Your task to perform on an android device: clear all cookies in the chrome app Image 0: 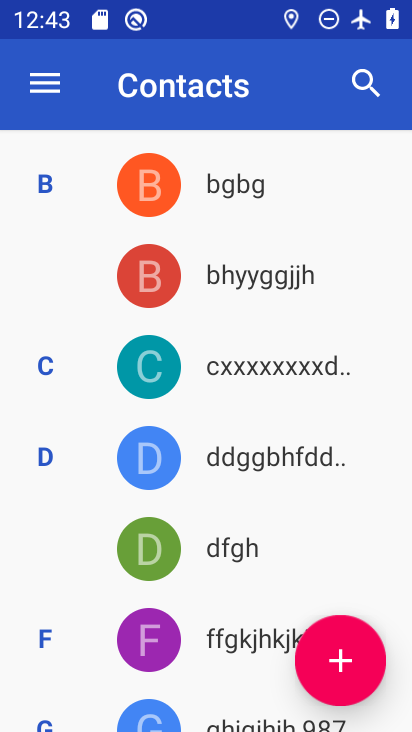
Step 0: press home button
Your task to perform on an android device: clear all cookies in the chrome app Image 1: 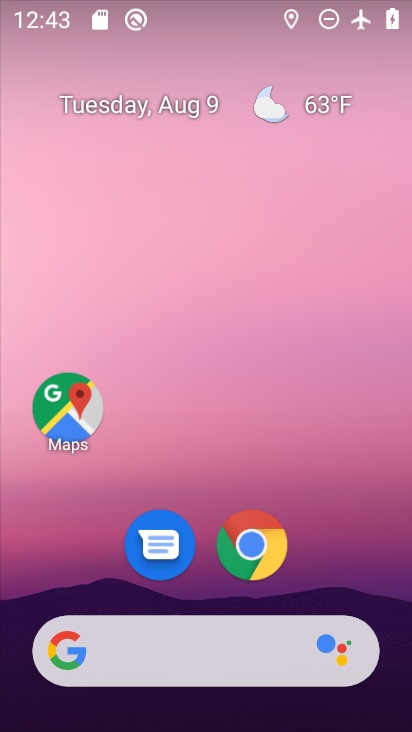
Step 1: click (255, 545)
Your task to perform on an android device: clear all cookies in the chrome app Image 2: 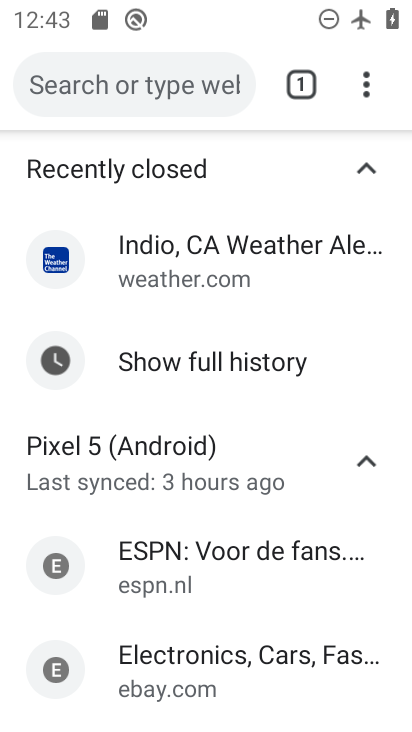
Step 2: click (367, 85)
Your task to perform on an android device: clear all cookies in the chrome app Image 3: 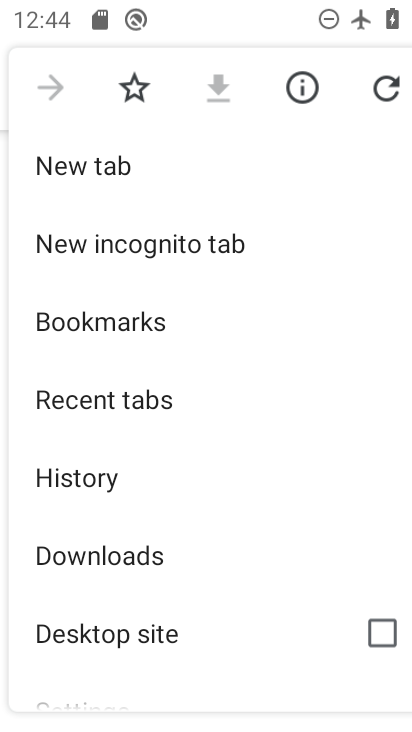
Step 3: drag from (134, 504) to (155, 396)
Your task to perform on an android device: clear all cookies in the chrome app Image 4: 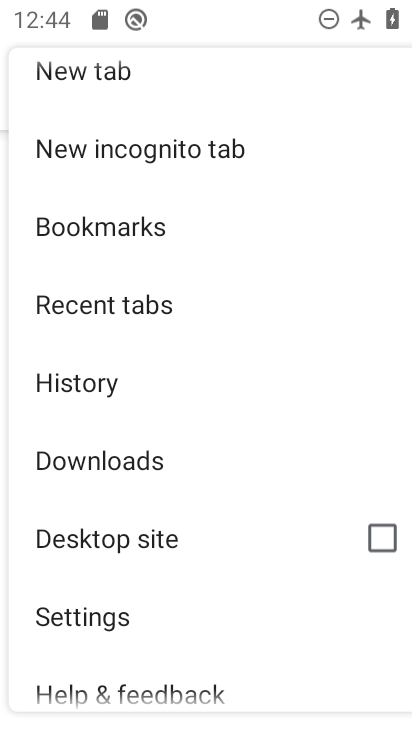
Step 4: drag from (133, 556) to (178, 435)
Your task to perform on an android device: clear all cookies in the chrome app Image 5: 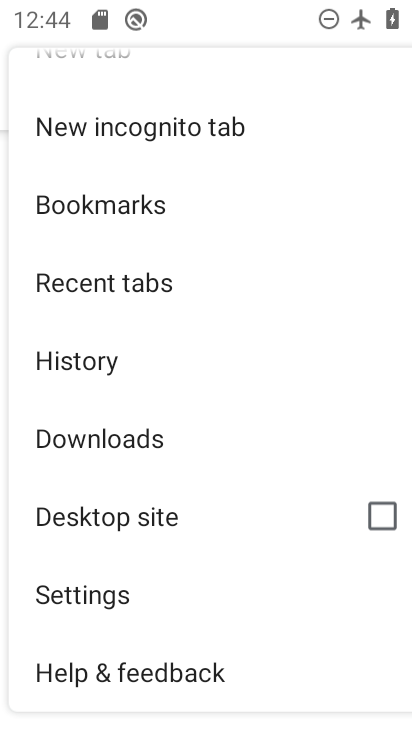
Step 5: click (112, 592)
Your task to perform on an android device: clear all cookies in the chrome app Image 6: 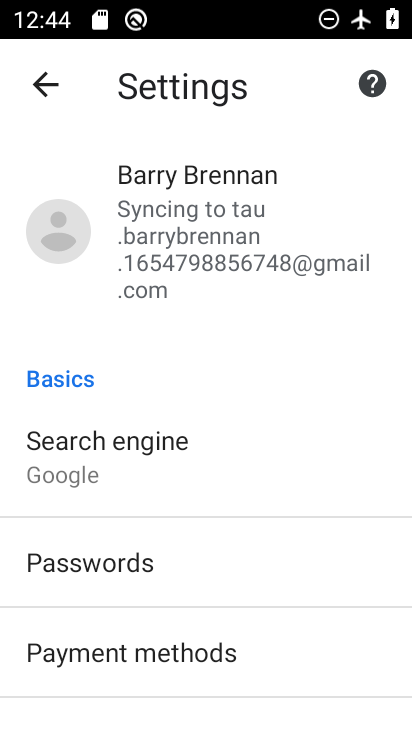
Step 6: drag from (164, 564) to (243, 447)
Your task to perform on an android device: clear all cookies in the chrome app Image 7: 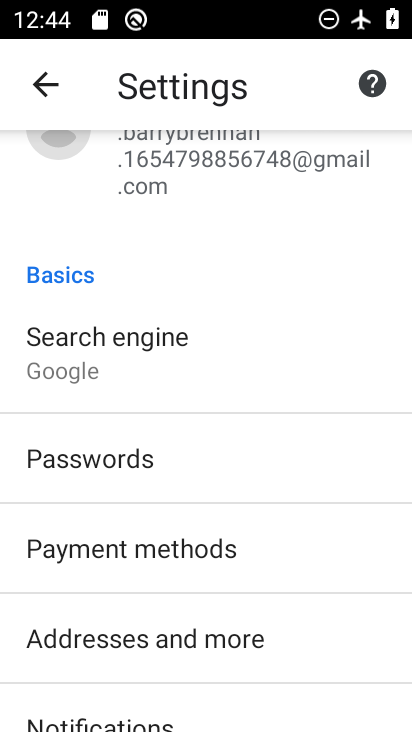
Step 7: drag from (144, 682) to (278, 507)
Your task to perform on an android device: clear all cookies in the chrome app Image 8: 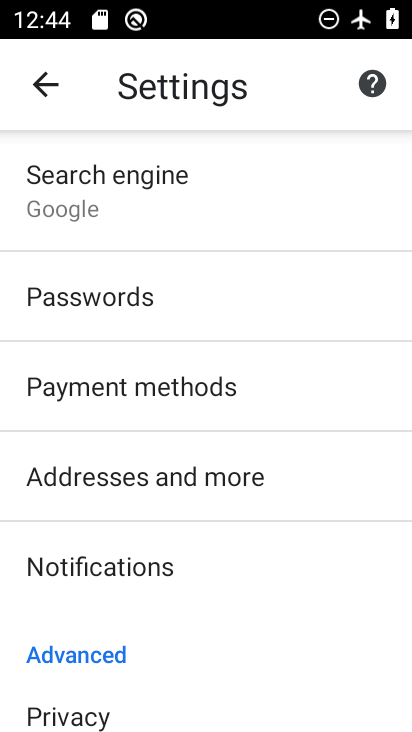
Step 8: drag from (177, 656) to (243, 463)
Your task to perform on an android device: clear all cookies in the chrome app Image 9: 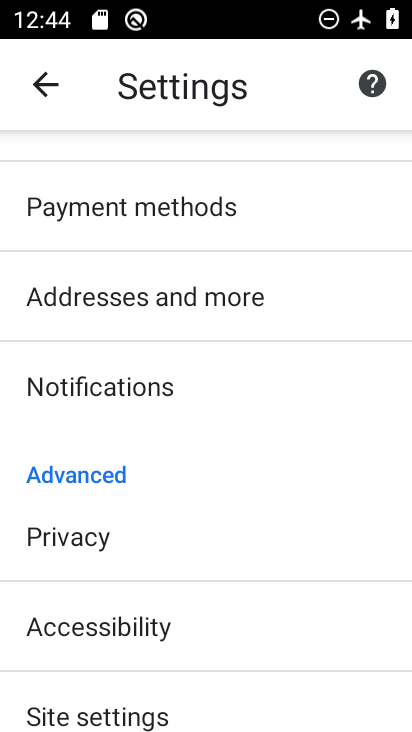
Step 9: drag from (197, 621) to (252, 520)
Your task to perform on an android device: clear all cookies in the chrome app Image 10: 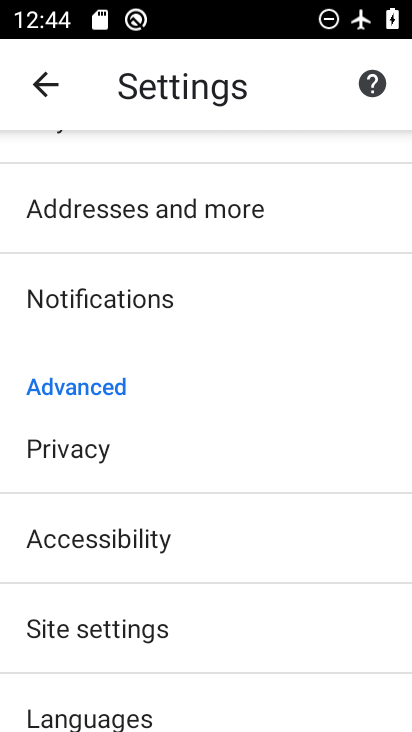
Step 10: click (77, 462)
Your task to perform on an android device: clear all cookies in the chrome app Image 11: 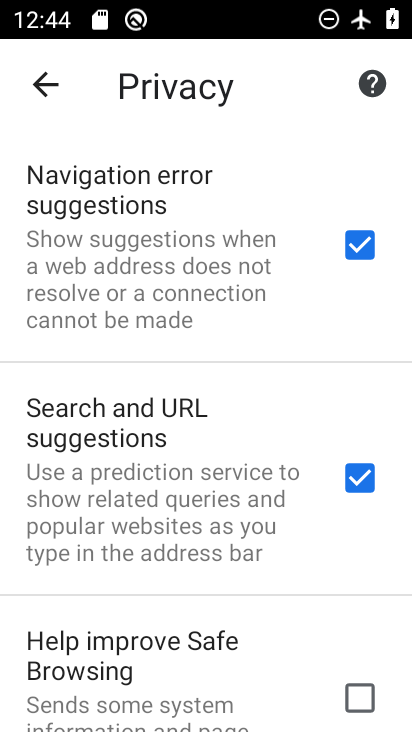
Step 11: drag from (256, 665) to (239, 371)
Your task to perform on an android device: clear all cookies in the chrome app Image 12: 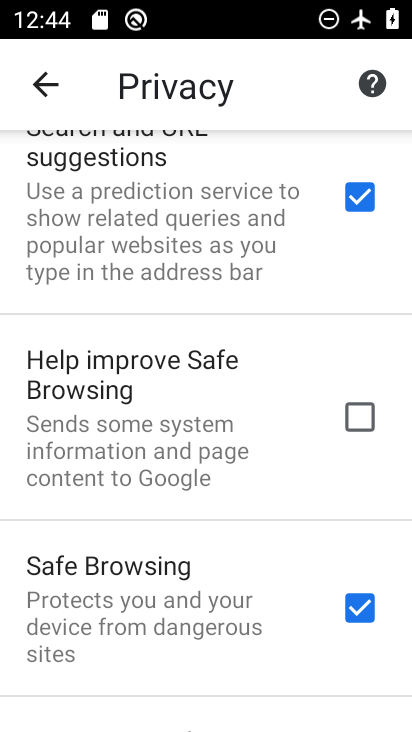
Step 12: drag from (211, 646) to (190, 369)
Your task to perform on an android device: clear all cookies in the chrome app Image 13: 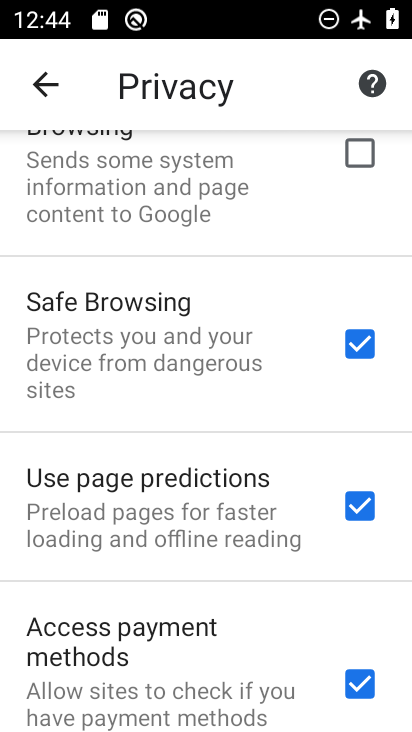
Step 13: drag from (237, 642) to (218, 396)
Your task to perform on an android device: clear all cookies in the chrome app Image 14: 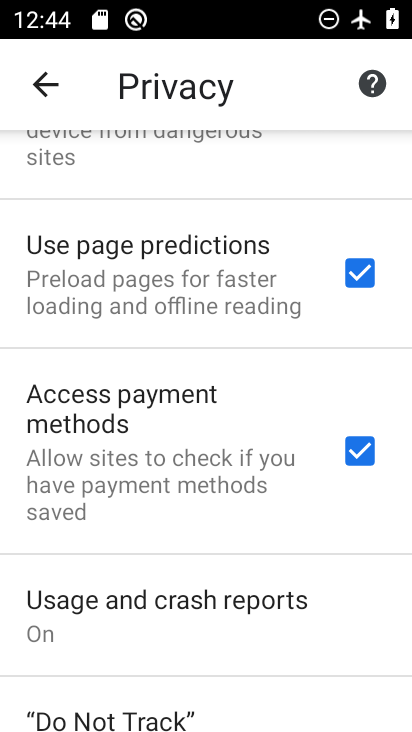
Step 14: drag from (217, 662) to (187, 435)
Your task to perform on an android device: clear all cookies in the chrome app Image 15: 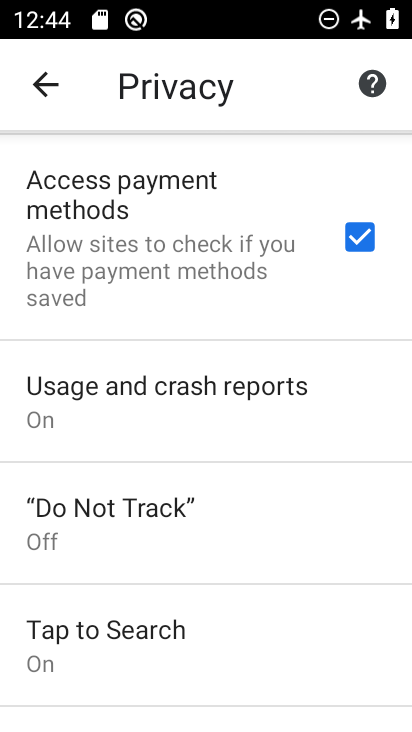
Step 15: drag from (234, 667) to (217, 417)
Your task to perform on an android device: clear all cookies in the chrome app Image 16: 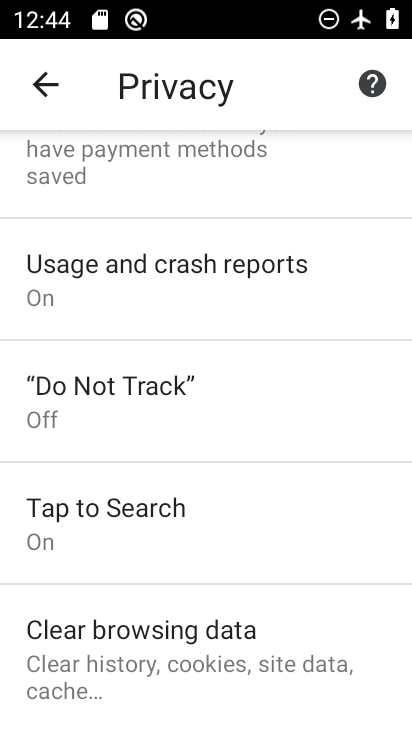
Step 16: click (227, 669)
Your task to perform on an android device: clear all cookies in the chrome app Image 17: 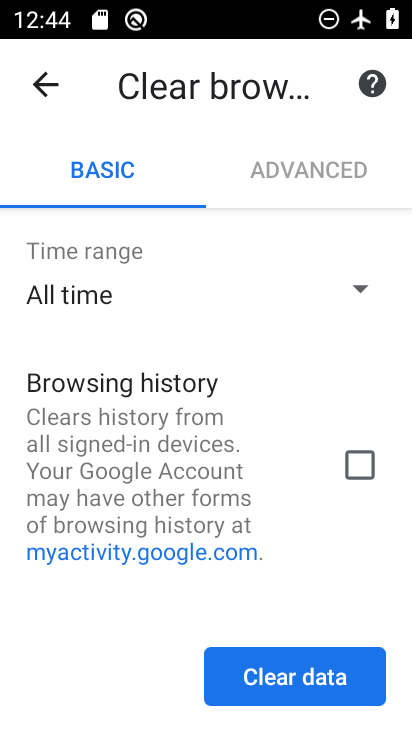
Step 17: drag from (172, 598) to (238, 464)
Your task to perform on an android device: clear all cookies in the chrome app Image 18: 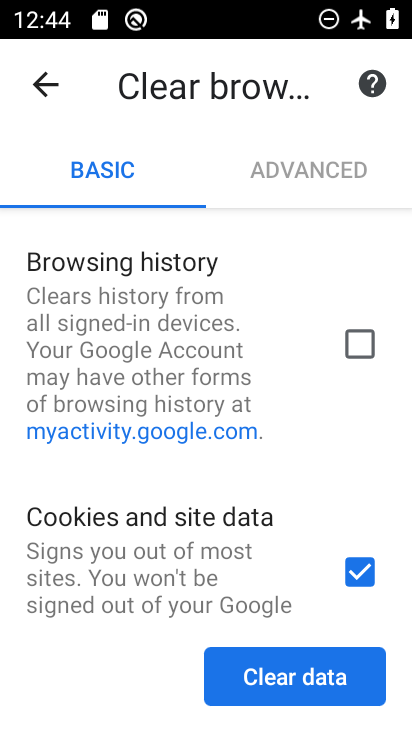
Step 18: drag from (277, 585) to (314, 506)
Your task to perform on an android device: clear all cookies in the chrome app Image 19: 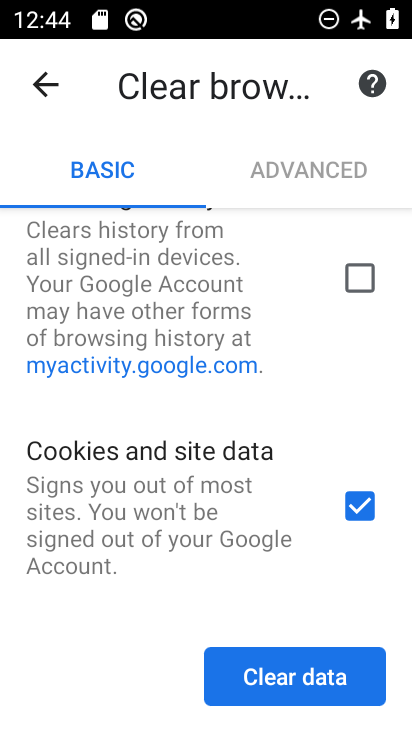
Step 19: click (296, 663)
Your task to perform on an android device: clear all cookies in the chrome app Image 20: 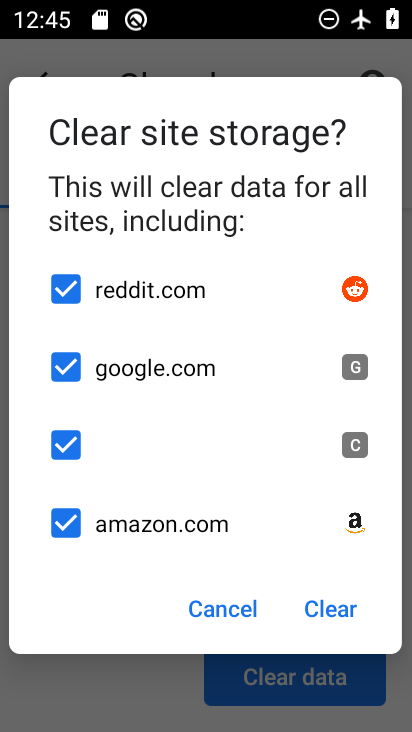
Step 20: click (328, 618)
Your task to perform on an android device: clear all cookies in the chrome app Image 21: 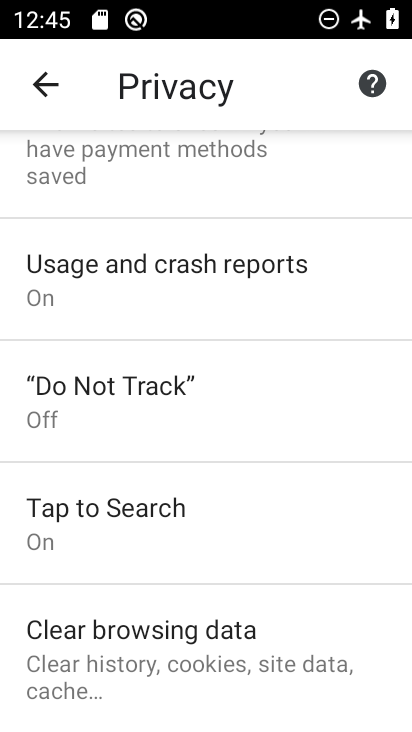
Step 21: task complete